Your task to perform on an android device: Open Google Chrome and open the bookmarks view Image 0: 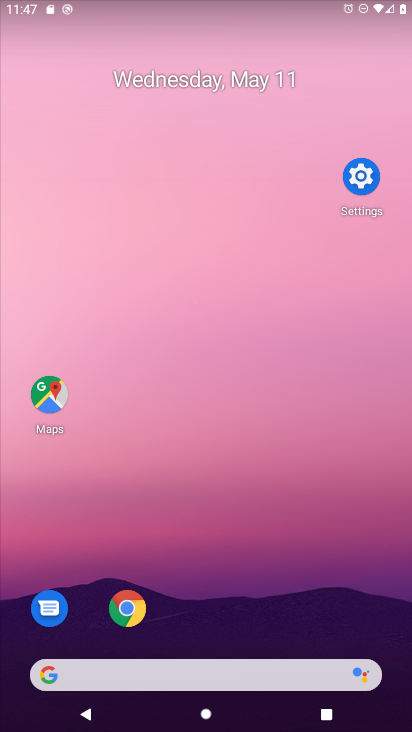
Step 0: drag from (328, 642) to (241, 174)
Your task to perform on an android device: Open Google Chrome and open the bookmarks view Image 1: 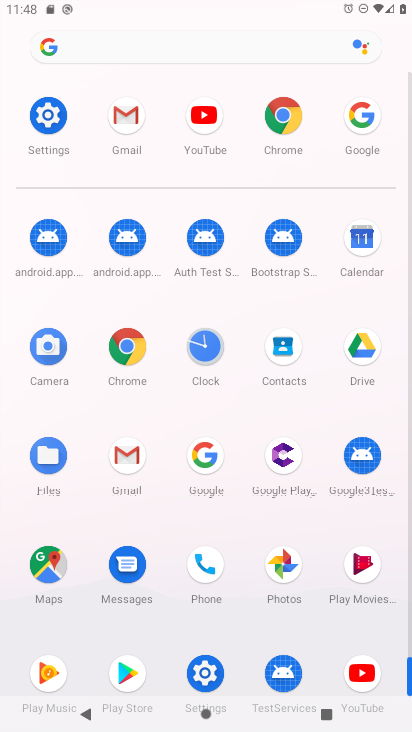
Step 1: click (279, 118)
Your task to perform on an android device: Open Google Chrome and open the bookmarks view Image 2: 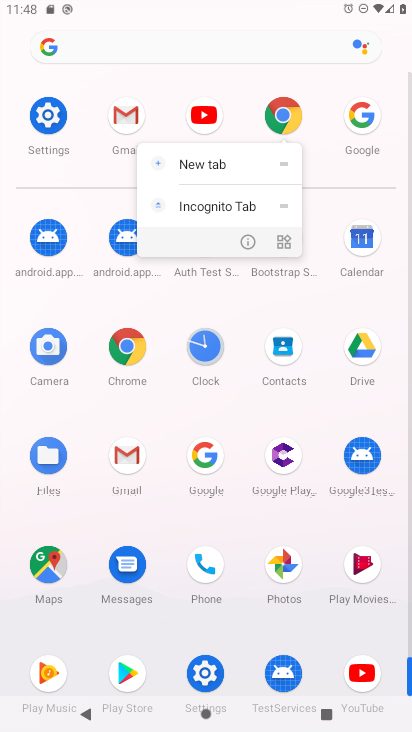
Step 2: click (279, 118)
Your task to perform on an android device: Open Google Chrome and open the bookmarks view Image 3: 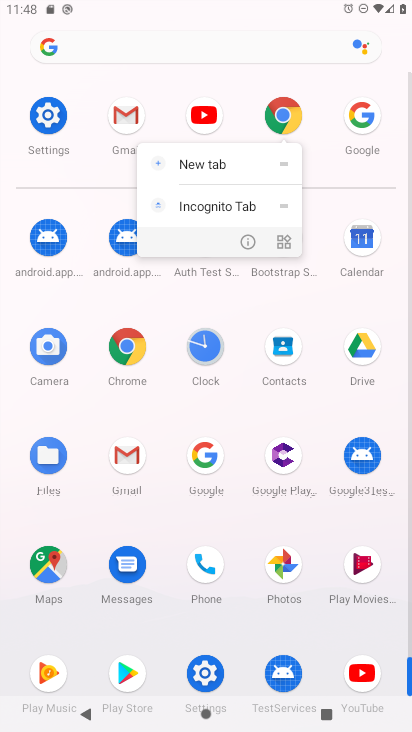
Step 3: click (286, 125)
Your task to perform on an android device: Open Google Chrome and open the bookmarks view Image 4: 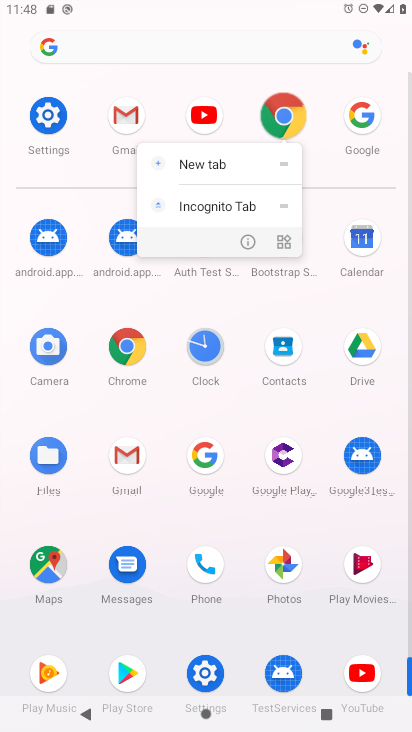
Step 4: click (288, 122)
Your task to perform on an android device: Open Google Chrome and open the bookmarks view Image 5: 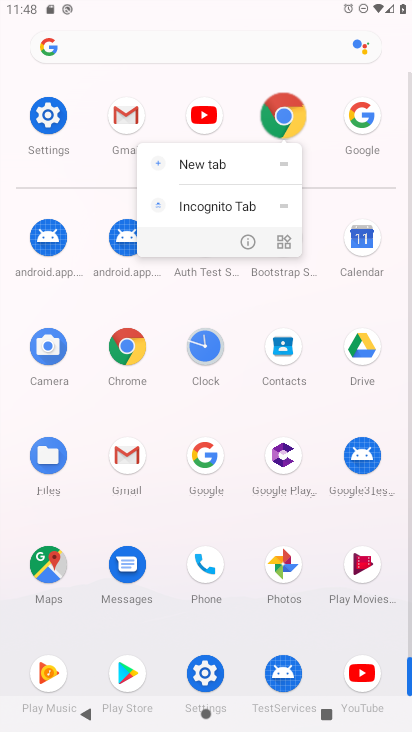
Step 5: click (285, 123)
Your task to perform on an android device: Open Google Chrome and open the bookmarks view Image 6: 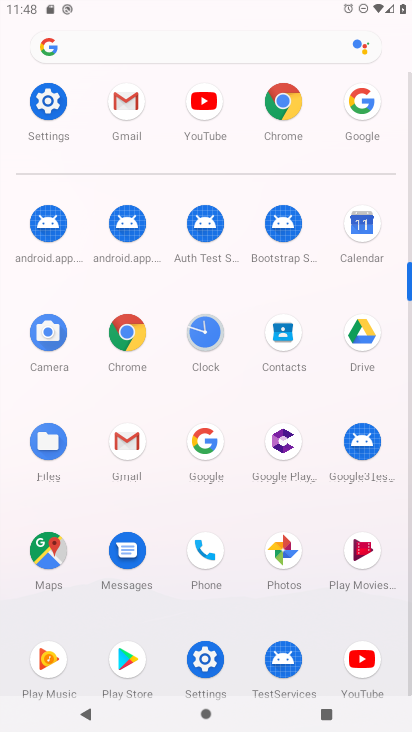
Step 6: click (279, 110)
Your task to perform on an android device: Open Google Chrome and open the bookmarks view Image 7: 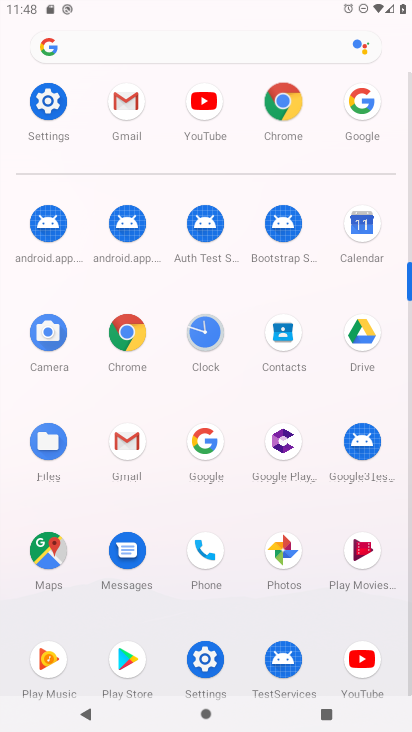
Step 7: click (282, 114)
Your task to perform on an android device: Open Google Chrome and open the bookmarks view Image 8: 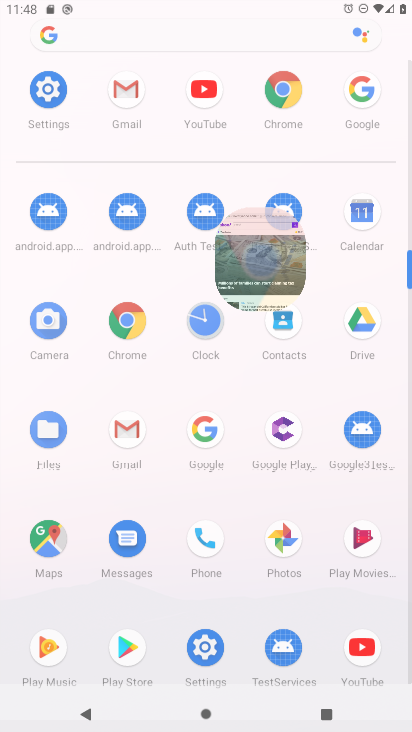
Step 8: click (282, 114)
Your task to perform on an android device: Open Google Chrome and open the bookmarks view Image 9: 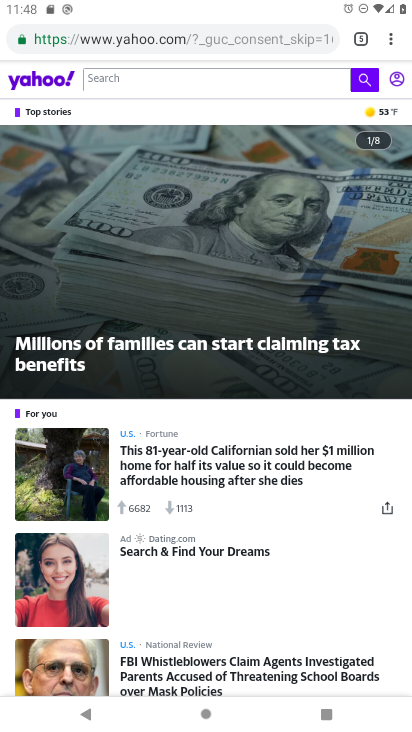
Step 9: drag from (393, 36) to (262, 156)
Your task to perform on an android device: Open Google Chrome and open the bookmarks view Image 10: 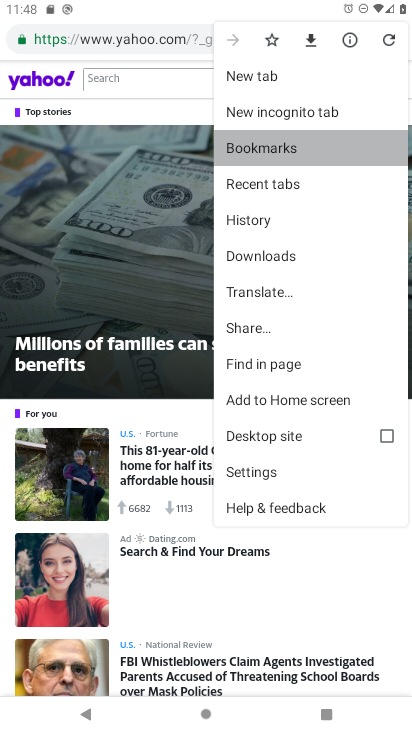
Step 10: click (262, 156)
Your task to perform on an android device: Open Google Chrome and open the bookmarks view Image 11: 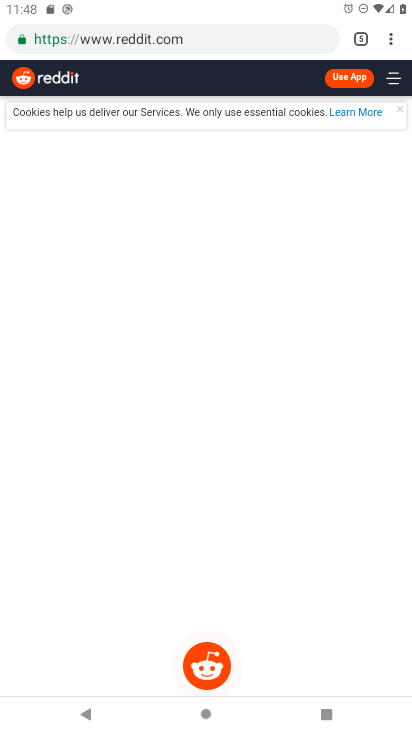
Step 11: drag from (394, 39) to (265, 153)
Your task to perform on an android device: Open Google Chrome and open the bookmarks view Image 12: 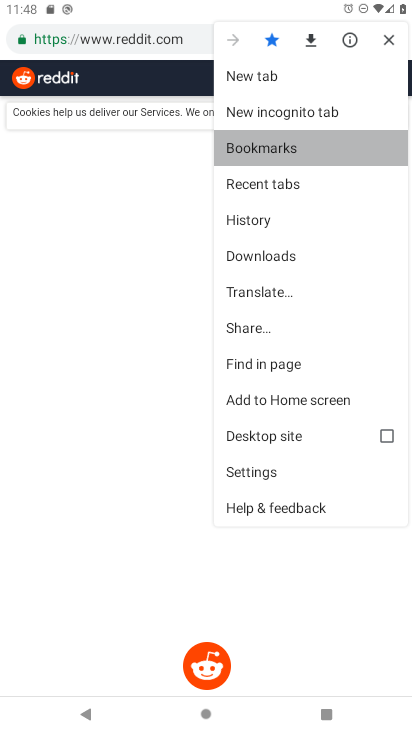
Step 12: click (265, 153)
Your task to perform on an android device: Open Google Chrome and open the bookmarks view Image 13: 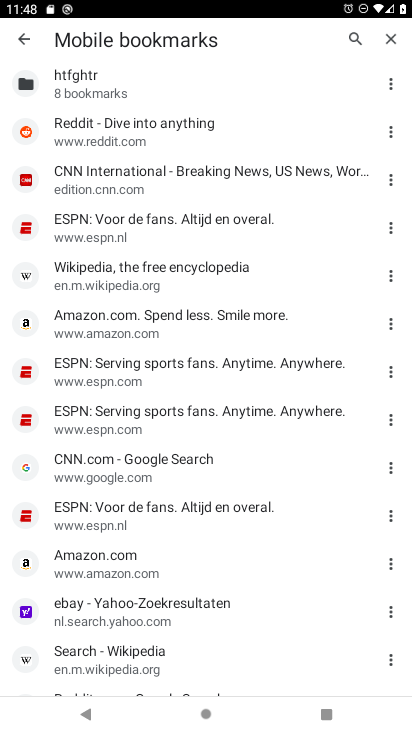
Step 13: task complete